Your task to perform on an android device: Go to display settings Image 0: 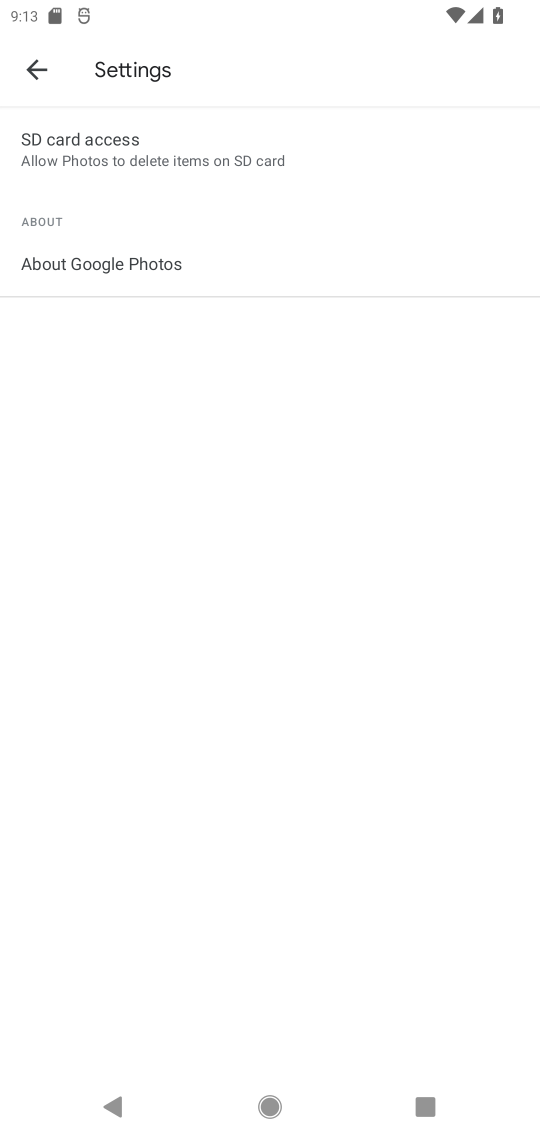
Step 0: click (52, 71)
Your task to perform on an android device: Go to display settings Image 1: 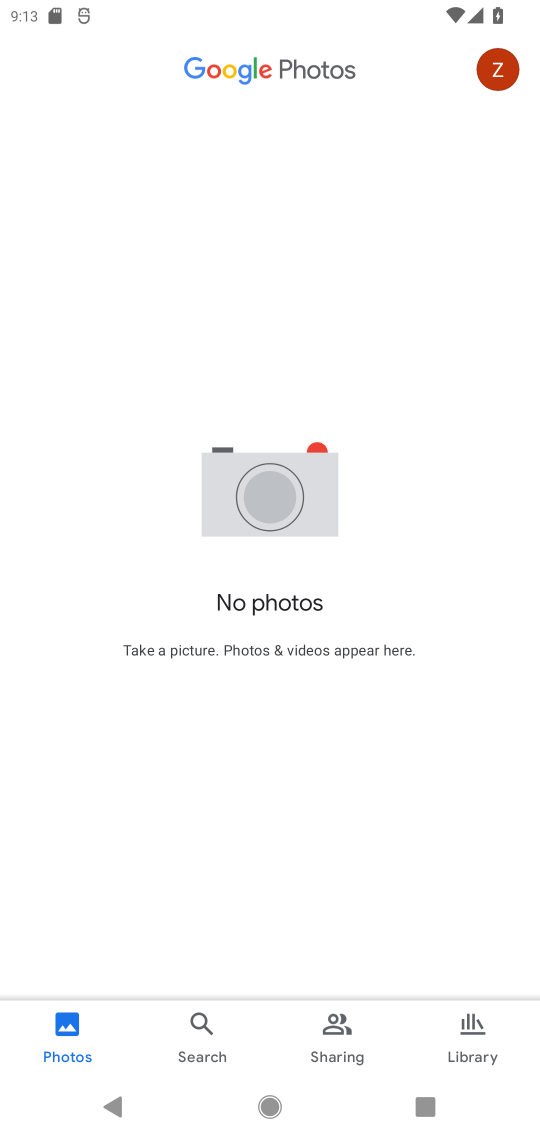
Step 1: press home button
Your task to perform on an android device: Go to display settings Image 2: 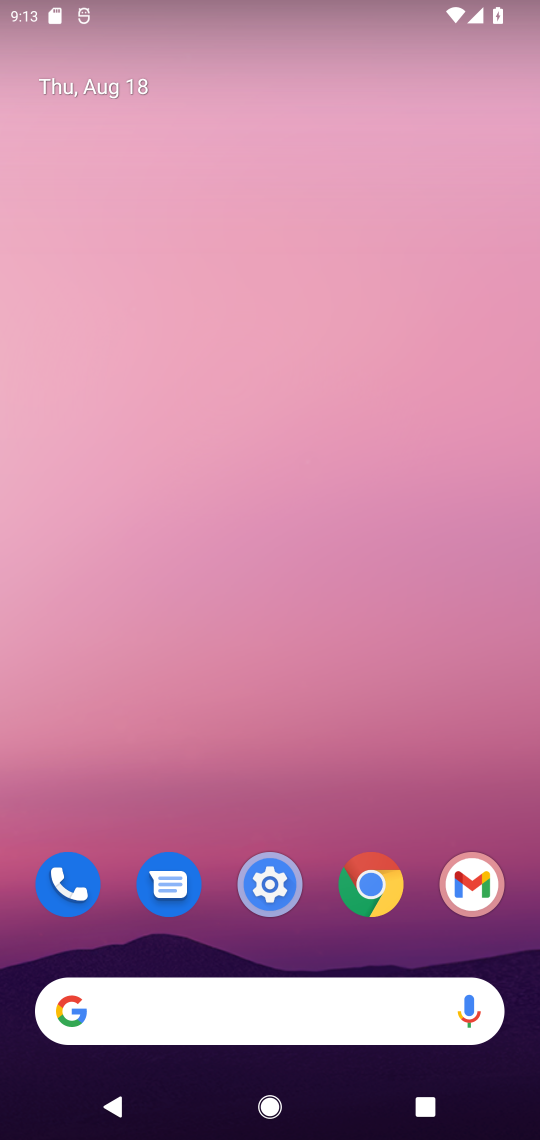
Step 2: click (273, 883)
Your task to perform on an android device: Go to display settings Image 3: 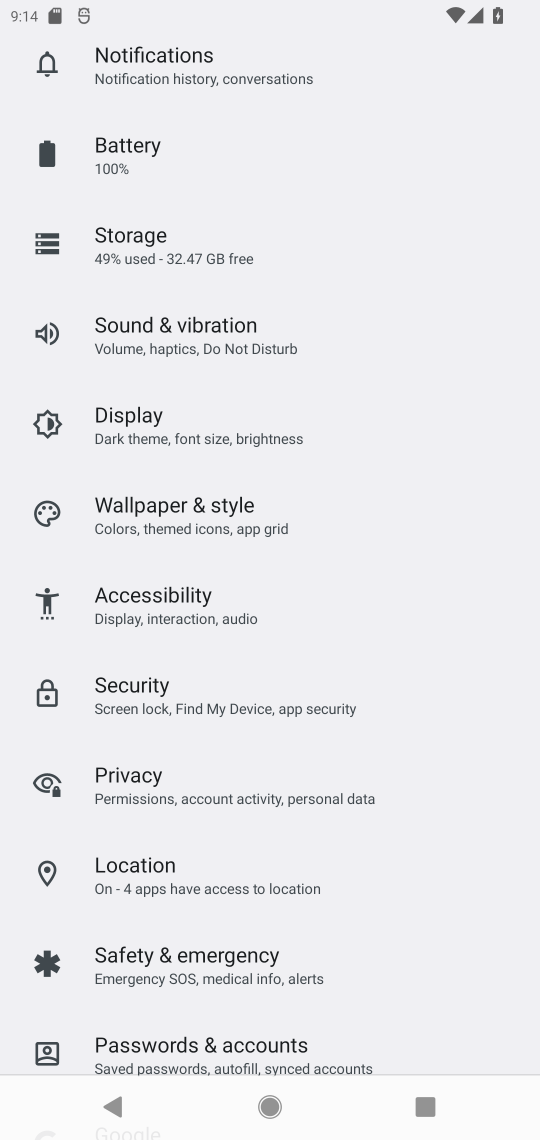
Step 3: click (149, 442)
Your task to perform on an android device: Go to display settings Image 4: 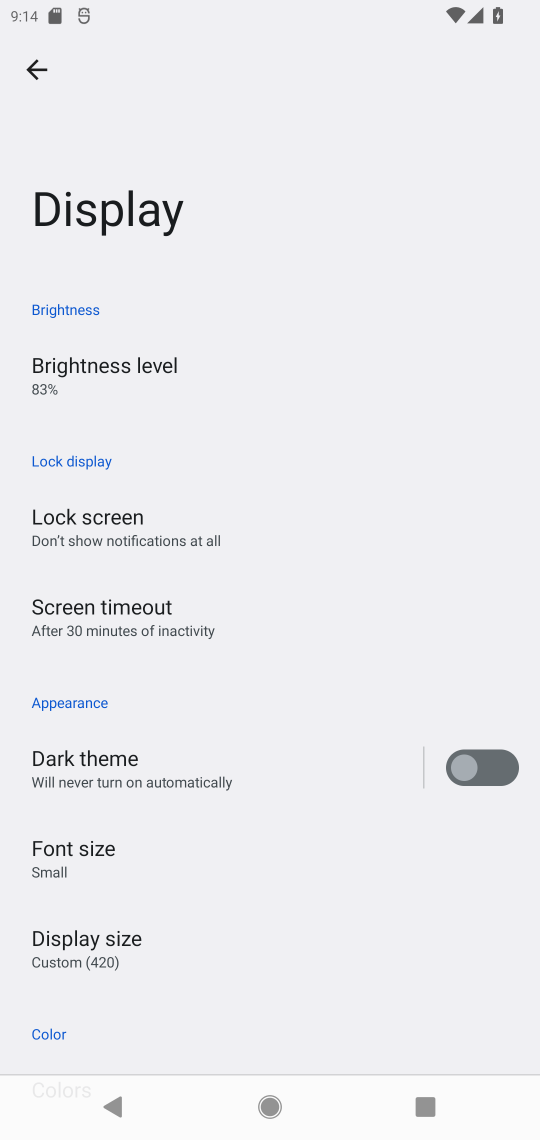
Step 4: task complete